Your task to perform on an android device: Search for Italian restaurants on Maps Image 0: 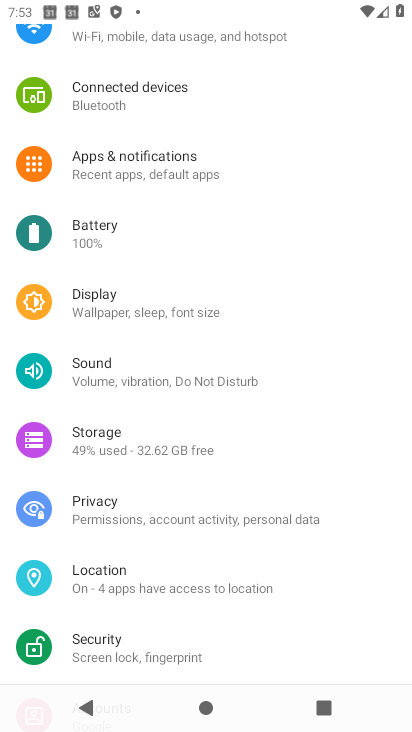
Step 0: press home button
Your task to perform on an android device: Search for Italian restaurants on Maps Image 1: 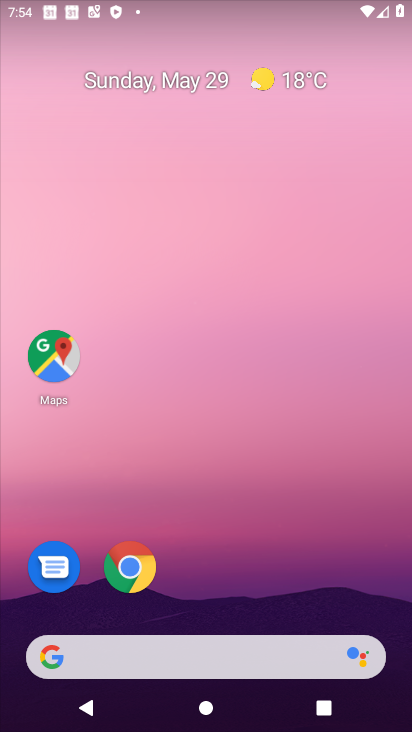
Step 1: click (54, 356)
Your task to perform on an android device: Search for Italian restaurants on Maps Image 2: 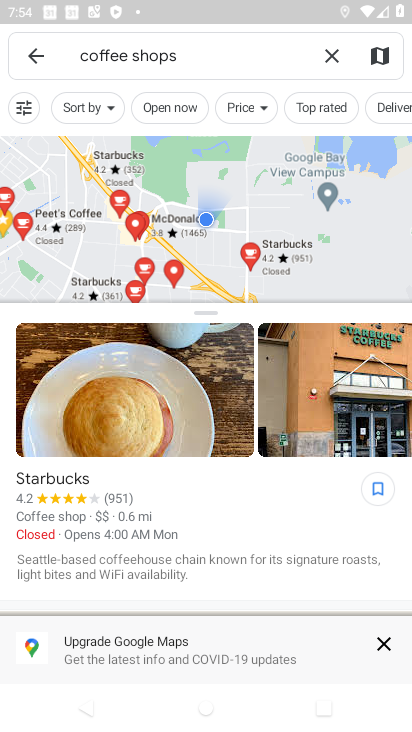
Step 2: click (336, 55)
Your task to perform on an android device: Search for Italian restaurants on Maps Image 3: 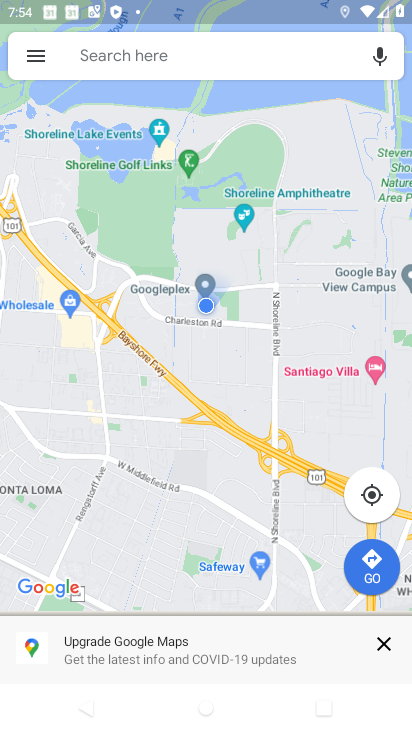
Step 3: click (238, 51)
Your task to perform on an android device: Search for Italian restaurants on Maps Image 4: 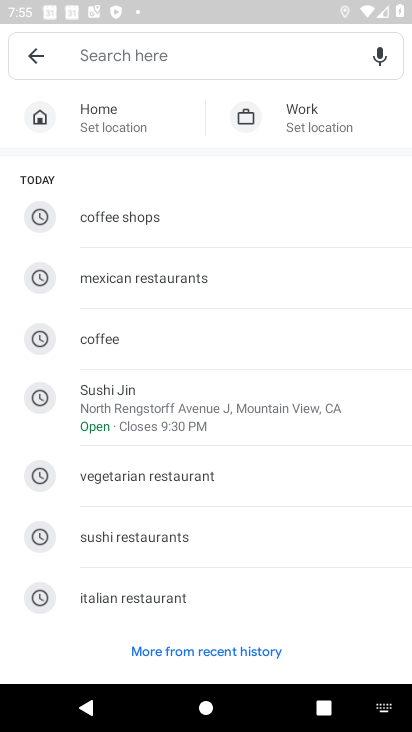
Step 4: type "Italian restaurants"
Your task to perform on an android device: Search for Italian restaurants on Maps Image 5: 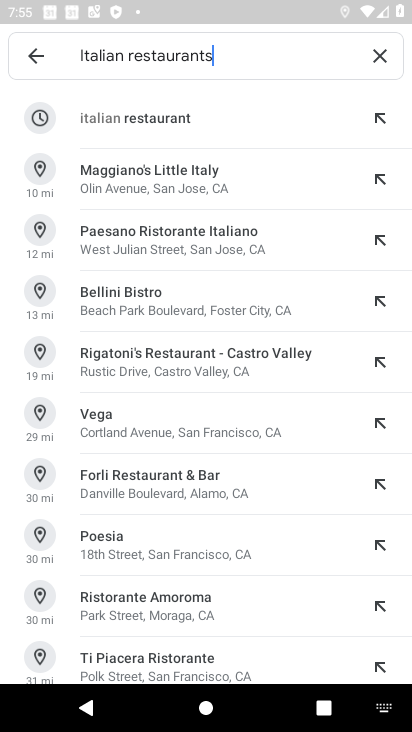
Step 5: click (164, 117)
Your task to perform on an android device: Search for Italian restaurants on Maps Image 6: 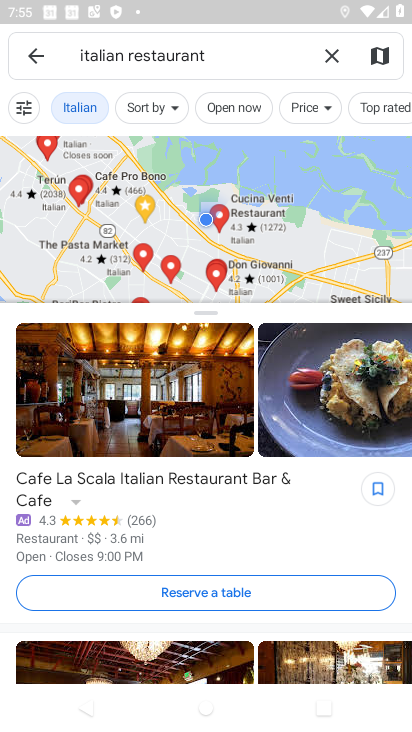
Step 6: task complete